Your task to perform on an android device: empty trash in the gmail app Image 0: 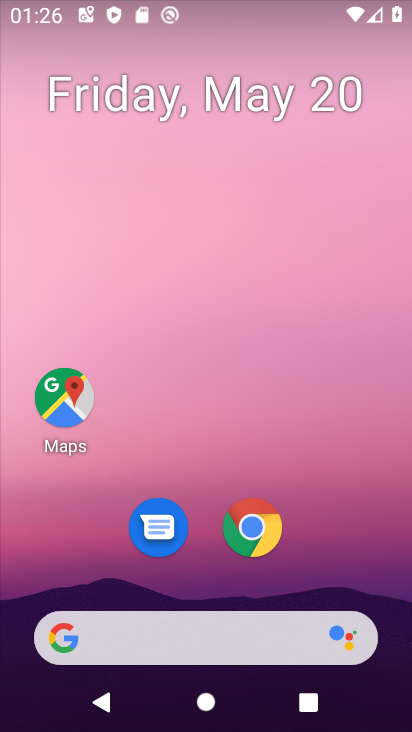
Step 0: press home button
Your task to perform on an android device: empty trash in the gmail app Image 1: 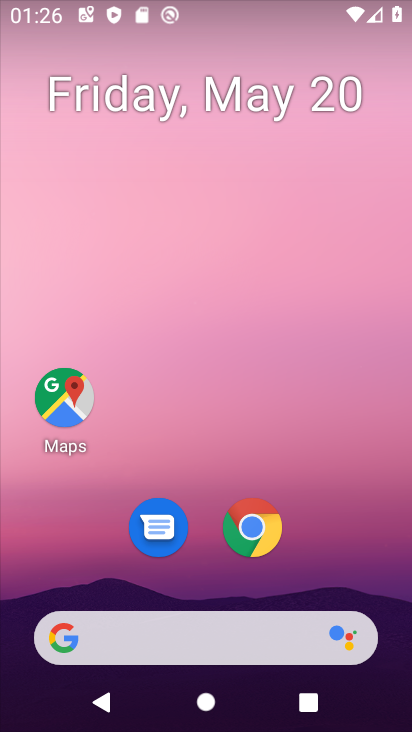
Step 1: drag from (191, 643) to (323, 97)
Your task to perform on an android device: empty trash in the gmail app Image 2: 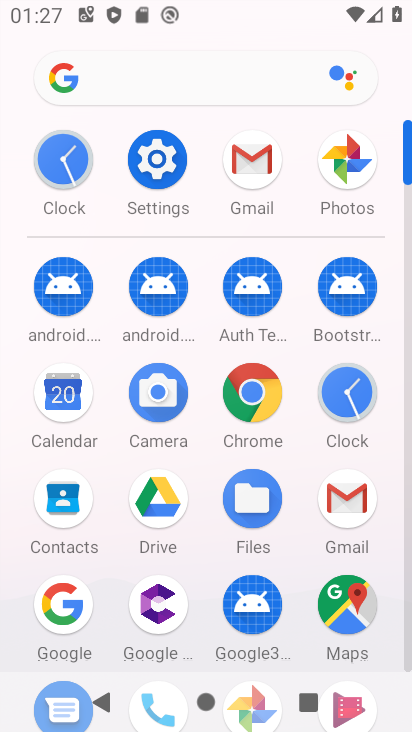
Step 2: click (245, 176)
Your task to perform on an android device: empty trash in the gmail app Image 3: 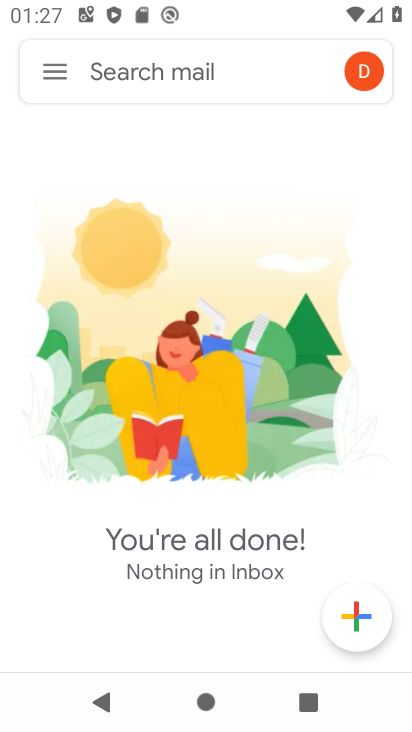
Step 3: click (51, 70)
Your task to perform on an android device: empty trash in the gmail app Image 4: 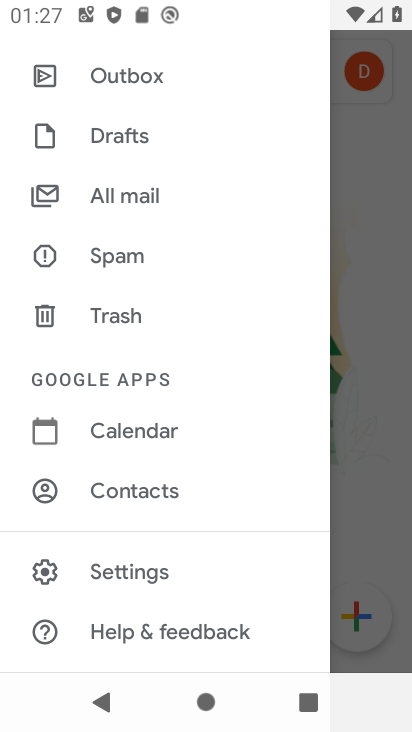
Step 4: click (105, 317)
Your task to perform on an android device: empty trash in the gmail app Image 5: 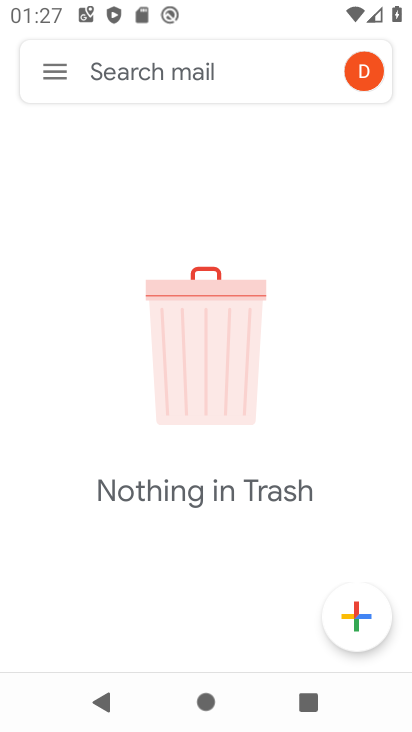
Step 5: task complete